Your task to perform on an android device: Go to display settings Image 0: 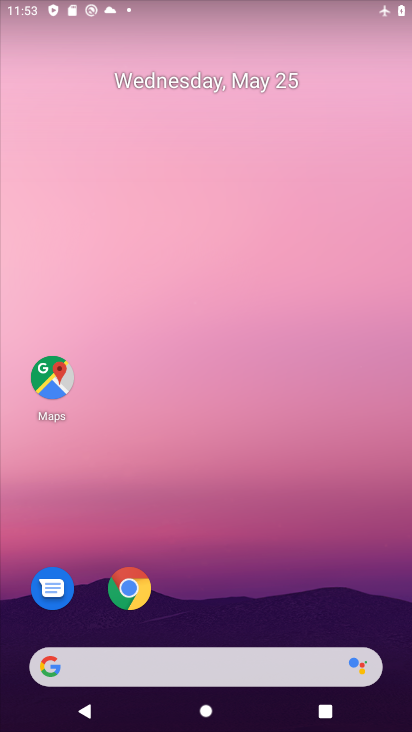
Step 0: drag from (200, 612) to (236, 250)
Your task to perform on an android device: Go to display settings Image 1: 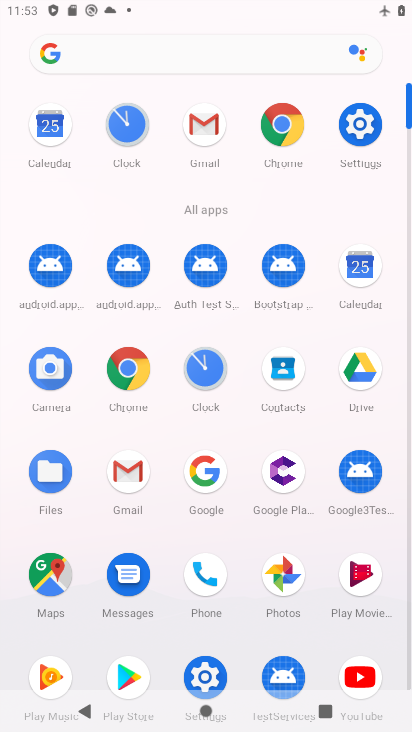
Step 1: click (356, 123)
Your task to perform on an android device: Go to display settings Image 2: 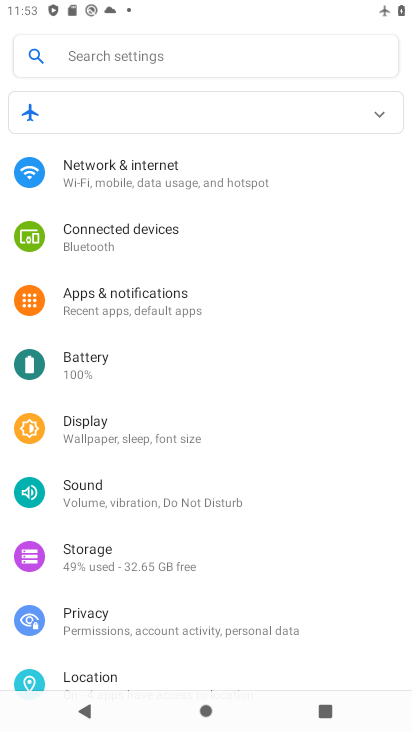
Step 2: drag from (136, 631) to (164, 255)
Your task to perform on an android device: Go to display settings Image 3: 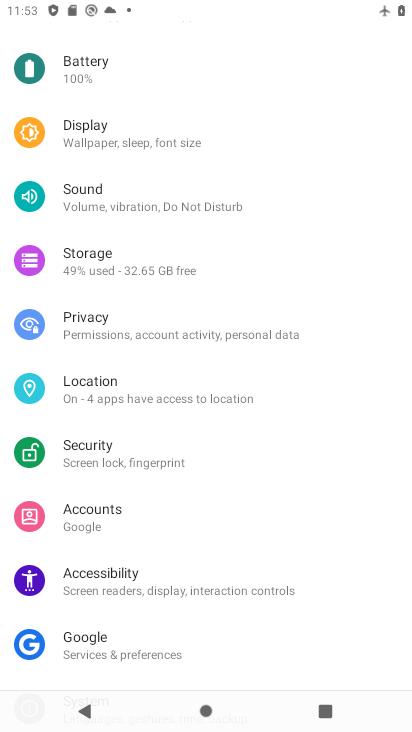
Step 3: click (166, 139)
Your task to perform on an android device: Go to display settings Image 4: 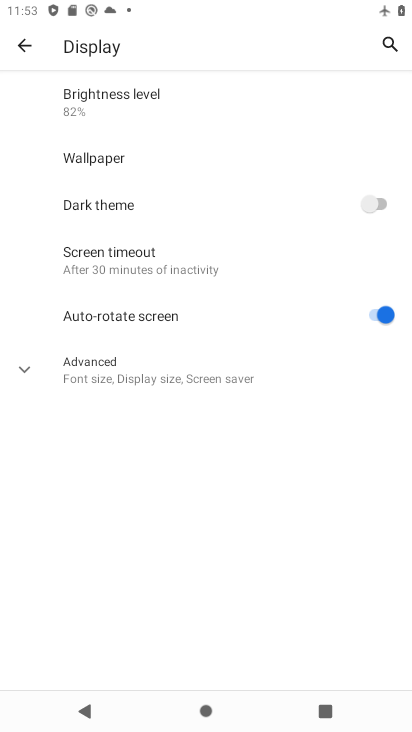
Step 4: task complete